Your task to perform on an android device: See recent photos Image 0: 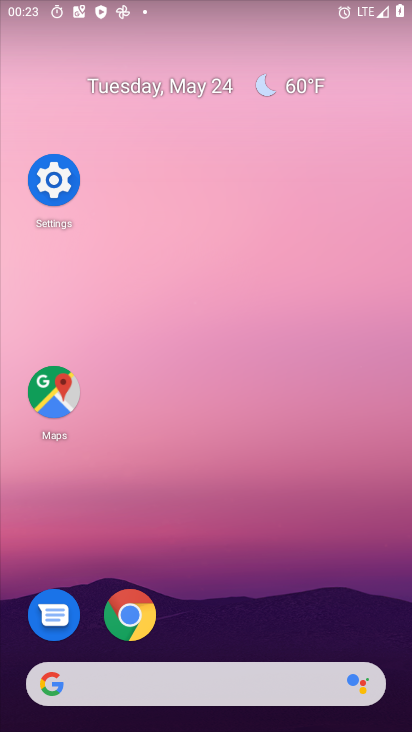
Step 0: drag from (255, 599) to (321, 50)
Your task to perform on an android device: See recent photos Image 1: 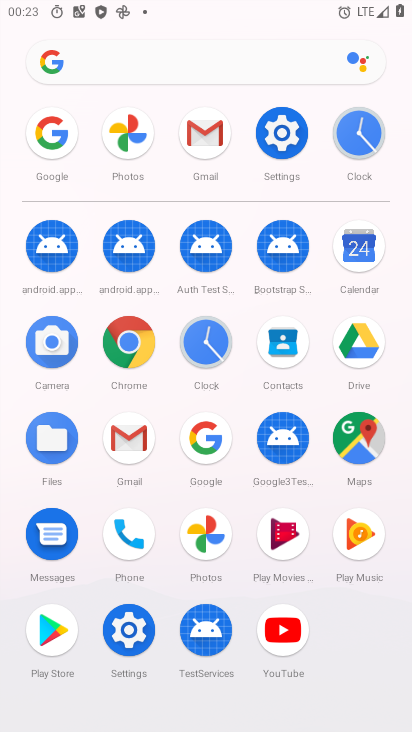
Step 1: click (201, 530)
Your task to perform on an android device: See recent photos Image 2: 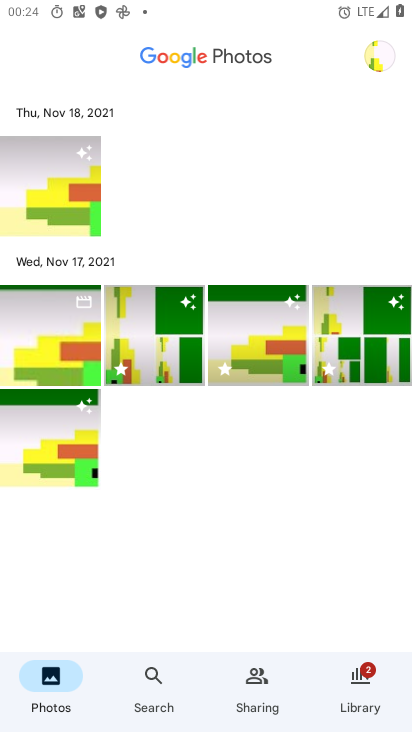
Step 2: task complete